Your task to perform on an android device: What's the weather? Image 0: 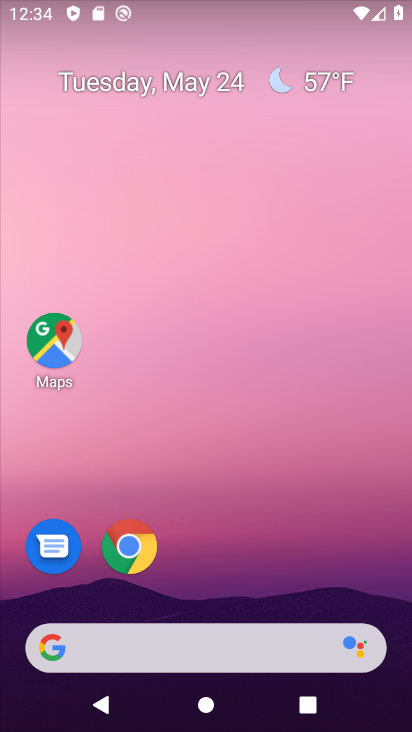
Step 0: click (156, 642)
Your task to perform on an android device: What's the weather? Image 1: 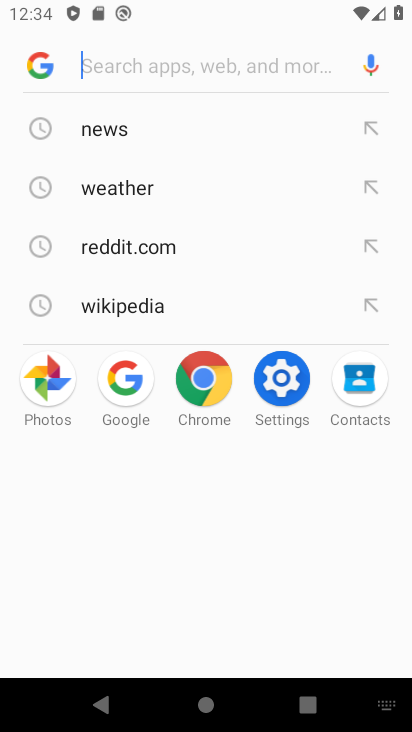
Step 1: type "what's the weather"
Your task to perform on an android device: What's the weather? Image 2: 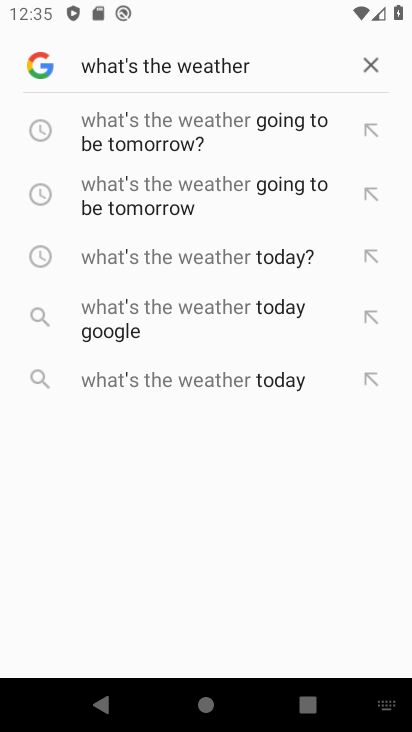
Step 2: click (168, 262)
Your task to perform on an android device: What's the weather? Image 3: 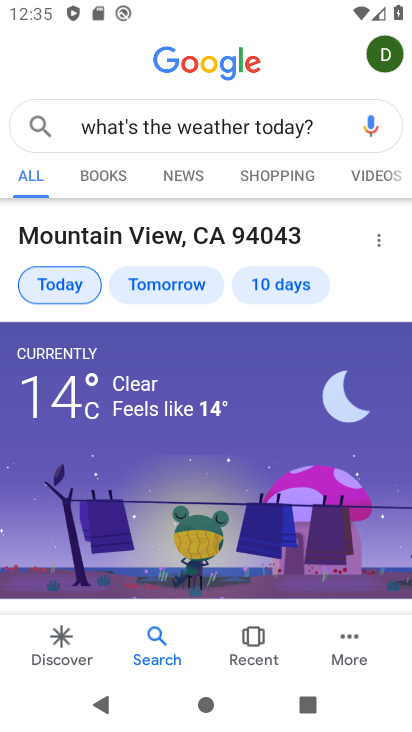
Step 3: task complete